Your task to perform on an android device: Search for vegetarian restaurants on Maps Image 0: 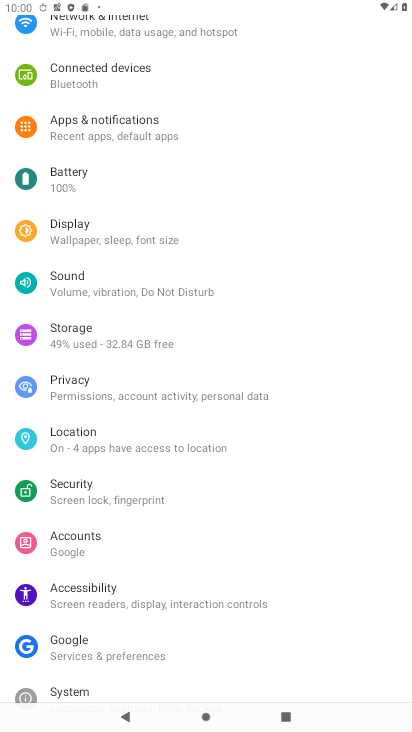
Step 0: press home button
Your task to perform on an android device: Search for vegetarian restaurants on Maps Image 1: 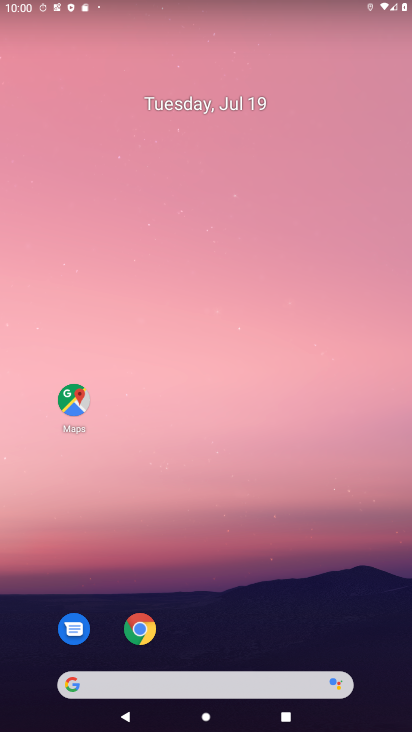
Step 1: click (78, 415)
Your task to perform on an android device: Search for vegetarian restaurants on Maps Image 2: 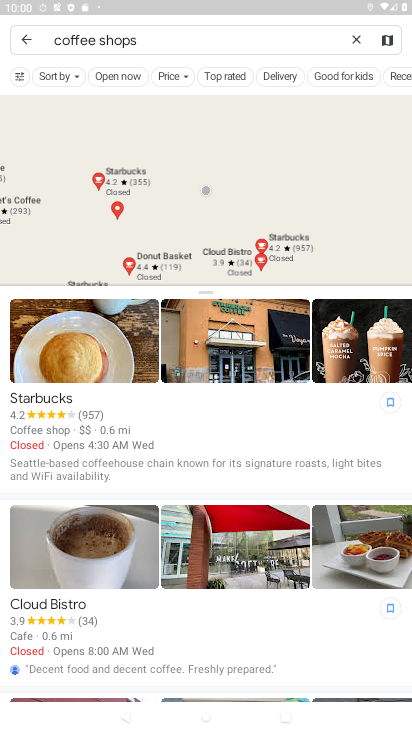
Step 2: click (351, 33)
Your task to perform on an android device: Search for vegetarian restaurants on Maps Image 3: 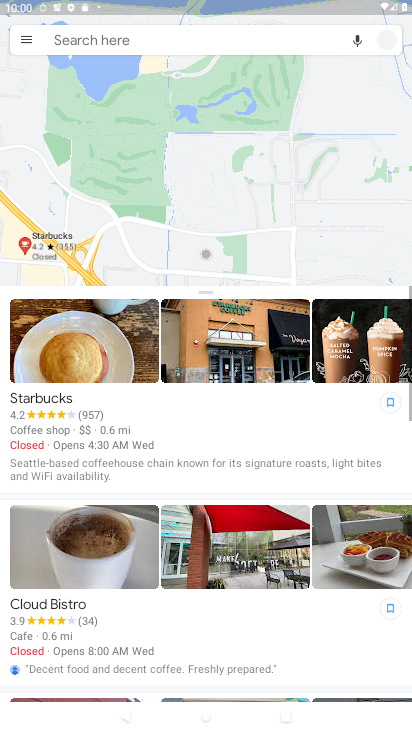
Step 3: click (152, 43)
Your task to perform on an android device: Search for vegetarian restaurants on Maps Image 4: 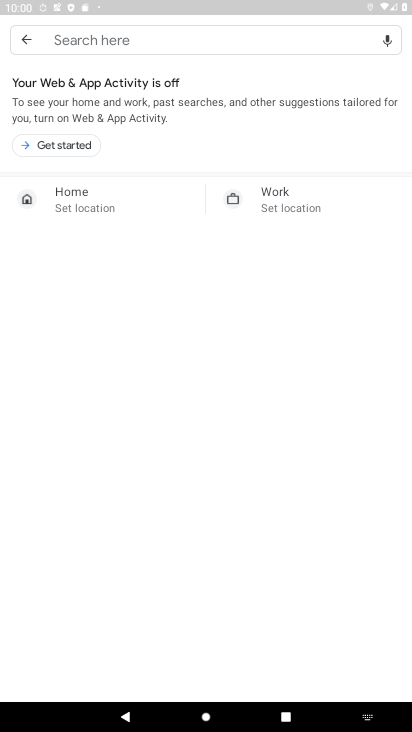
Step 4: type "vegetarian restaurants"
Your task to perform on an android device: Search for vegetarian restaurants on Maps Image 5: 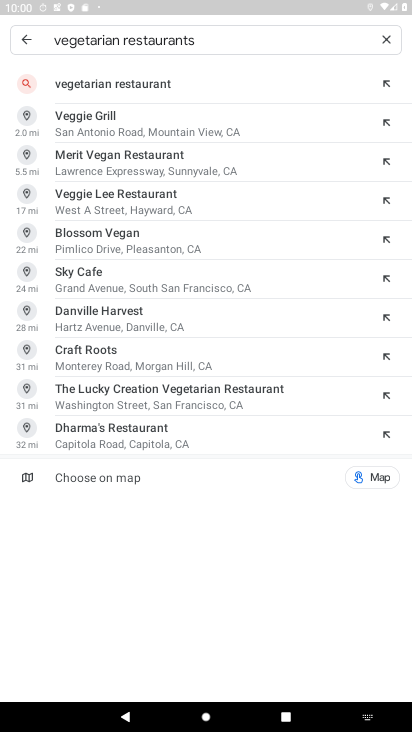
Step 5: click (126, 90)
Your task to perform on an android device: Search for vegetarian restaurants on Maps Image 6: 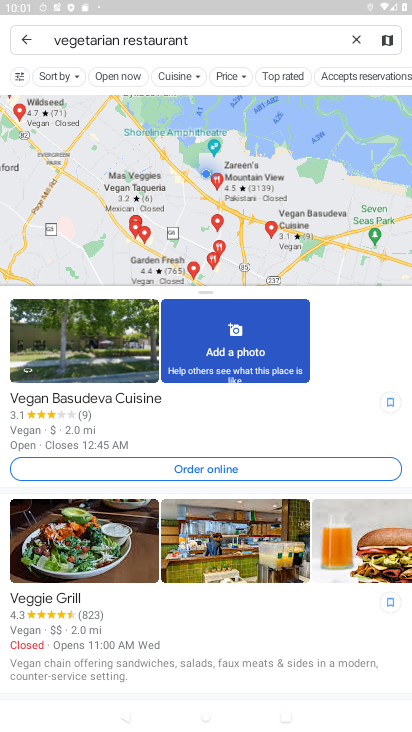
Step 6: task complete